Your task to perform on an android device: set default search engine in the chrome app Image 0: 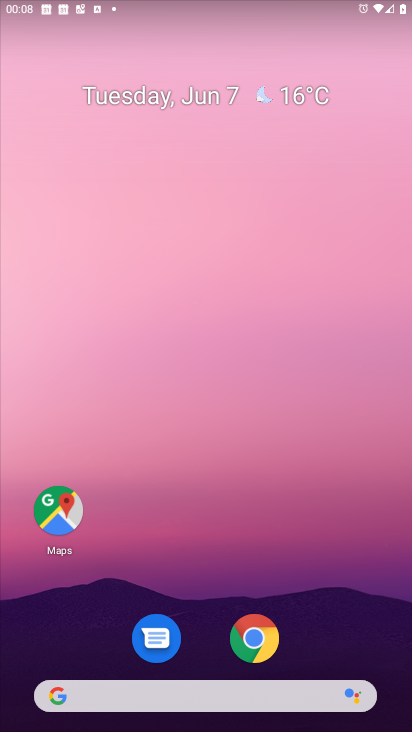
Step 0: drag from (275, 711) to (244, 177)
Your task to perform on an android device: set default search engine in the chrome app Image 1: 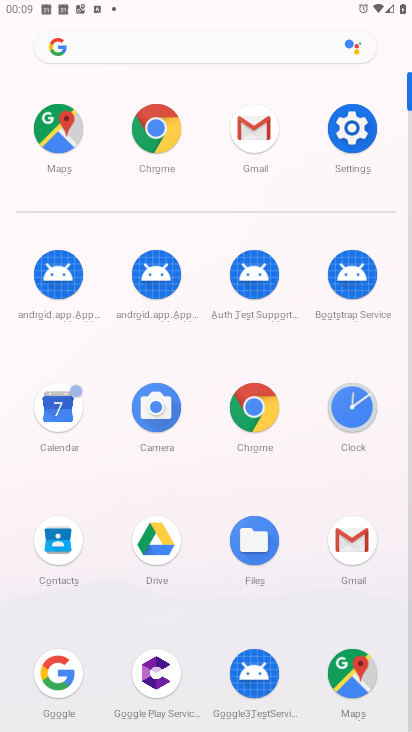
Step 1: click (249, 415)
Your task to perform on an android device: set default search engine in the chrome app Image 2: 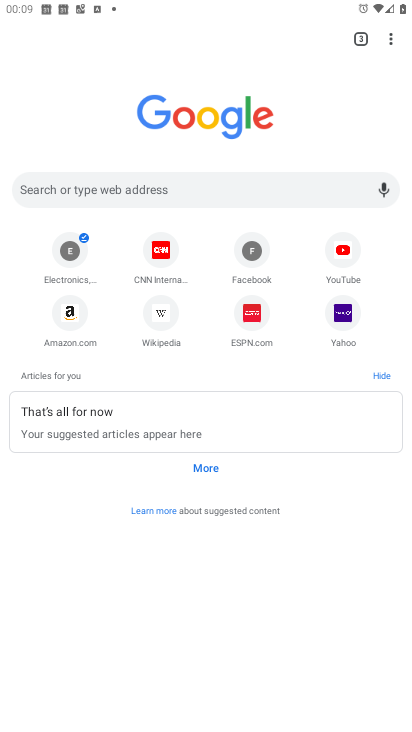
Step 2: click (385, 40)
Your task to perform on an android device: set default search engine in the chrome app Image 3: 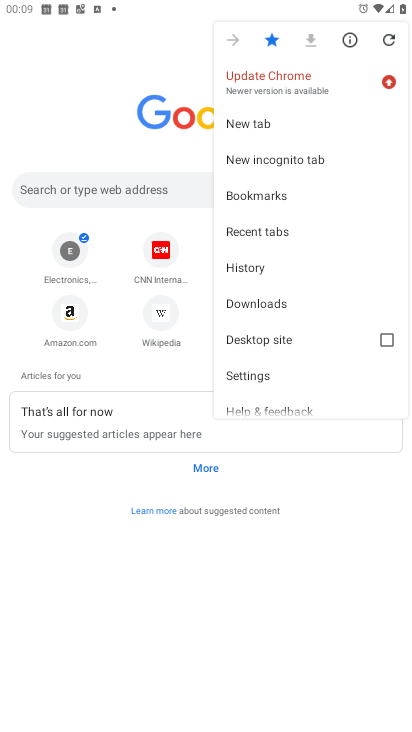
Step 3: click (247, 376)
Your task to perform on an android device: set default search engine in the chrome app Image 4: 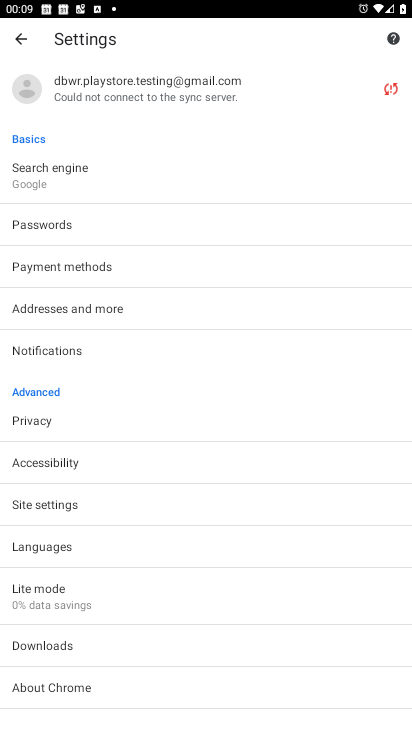
Step 4: click (112, 188)
Your task to perform on an android device: set default search engine in the chrome app Image 5: 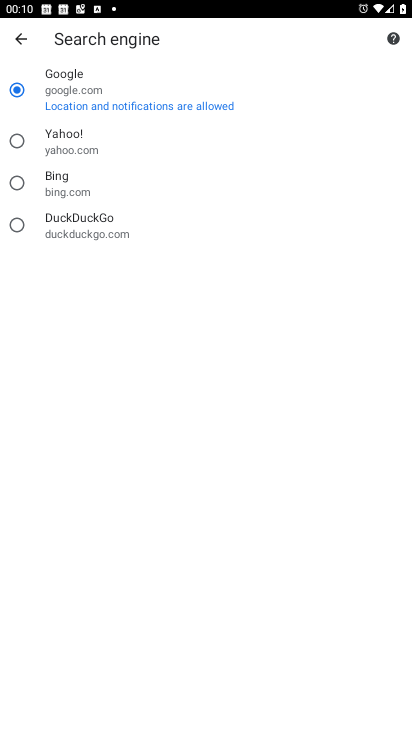
Step 5: task complete